Your task to perform on an android device: Search for Mexican restaurants on Maps Image 0: 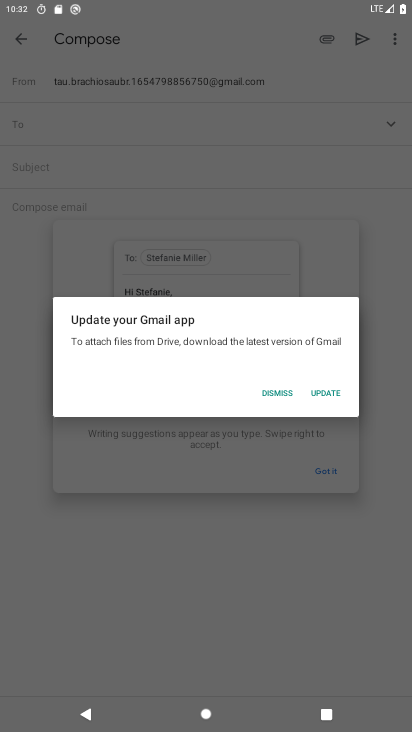
Step 0: press home button
Your task to perform on an android device: Search for Mexican restaurants on Maps Image 1: 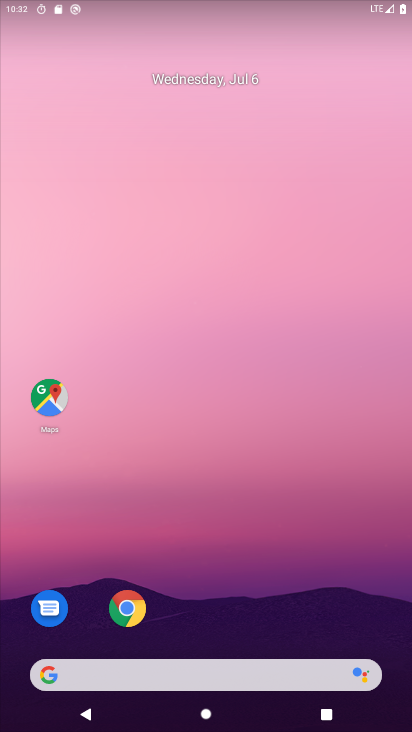
Step 1: drag from (216, 649) to (258, 111)
Your task to perform on an android device: Search for Mexican restaurants on Maps Image 2: 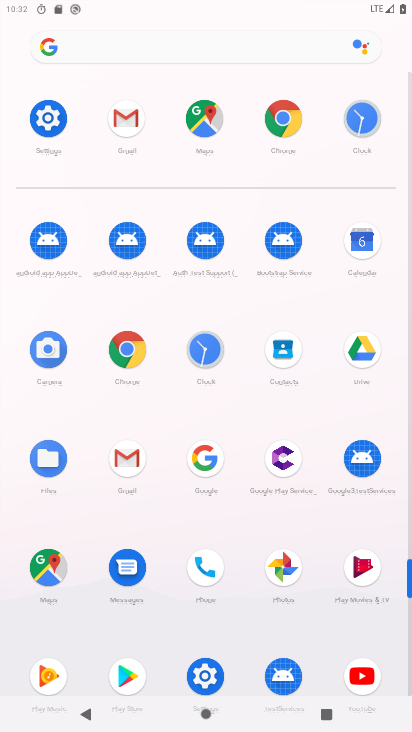
Step 2: click (209, 118)
Your task to perform on an android device: Search for Mexican restaurants on Maps Image 3: 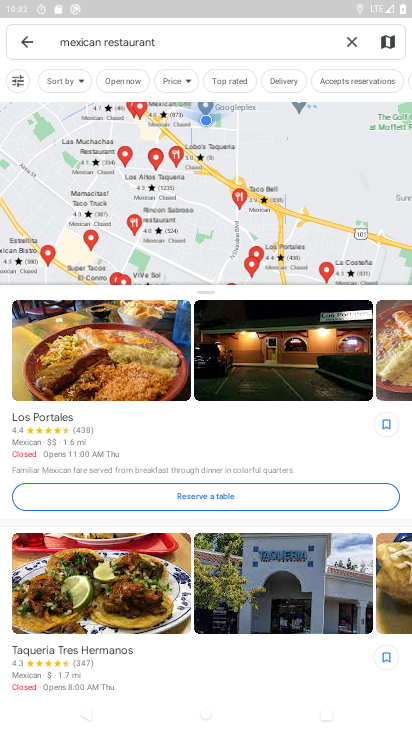
Step 3: task complete